Your task to perform on an android device: turn on priority inbox in the gmail app Image 0: 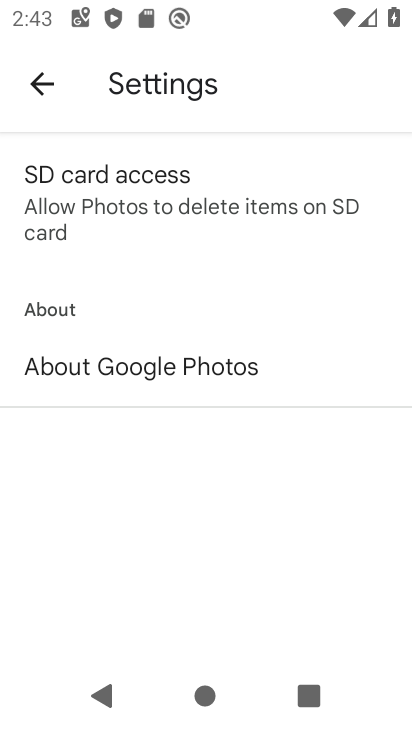
Step 0: press home button
Your task to perform on an android device: turn on priority inbox in the gmail app Image 1: 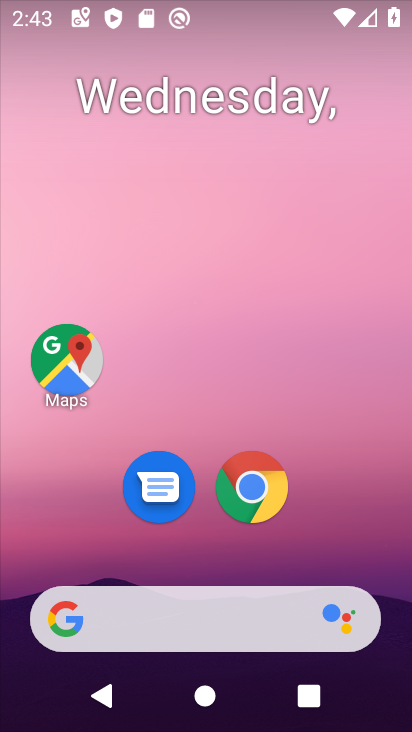
Step 1: drag from (379, 554) to (372, 118)
Your task to perform on an android device: turn on priority inbox in the gmail app Image 2: 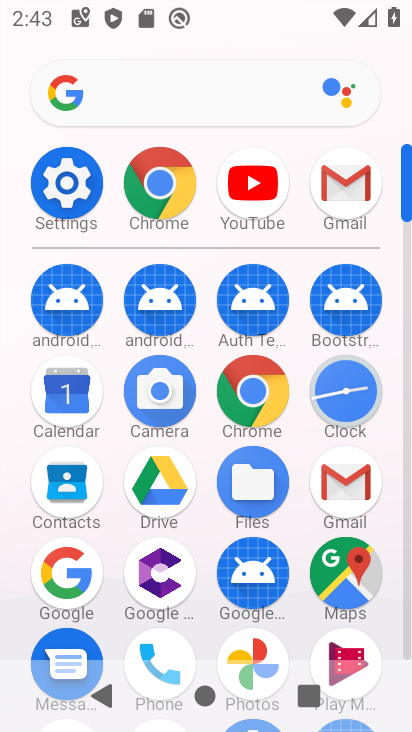
Step 2: click (355, 478)
Your task to perform on an android device: turn on priority inbox in the gmail app Image 3: 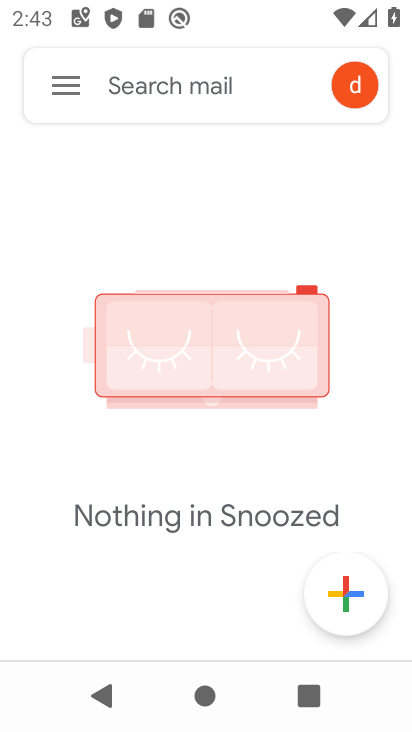
Step 3: click (69, 92)
Your task to perform on an android device: turn on priority inbox in the gmail app Image 4: 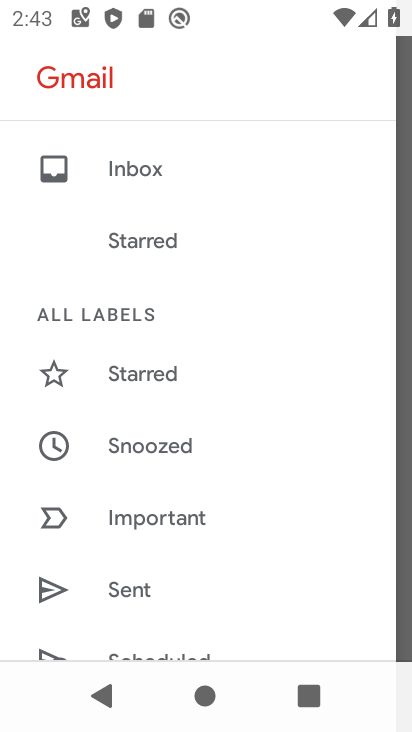
Step 4: drag from (287, 348) to (293, 260)
Your task to perform on an android device: turn on priority inbox in the gmail app Image 5: 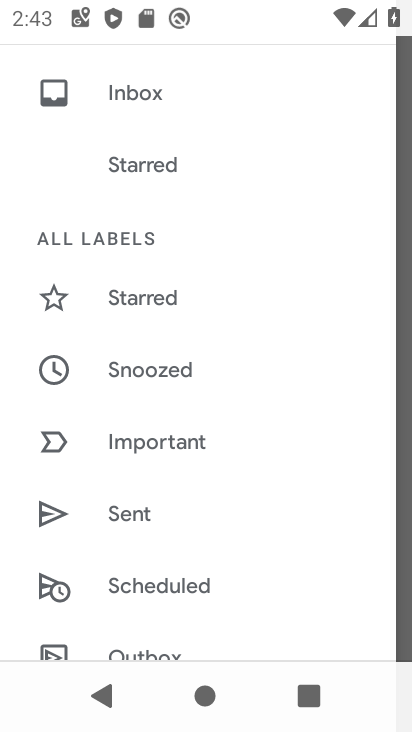
Step 5: drag from (291, 374) to (302, 304)
Your task to perform on an android device: turn on priority inbox in the gmail app Image 6: 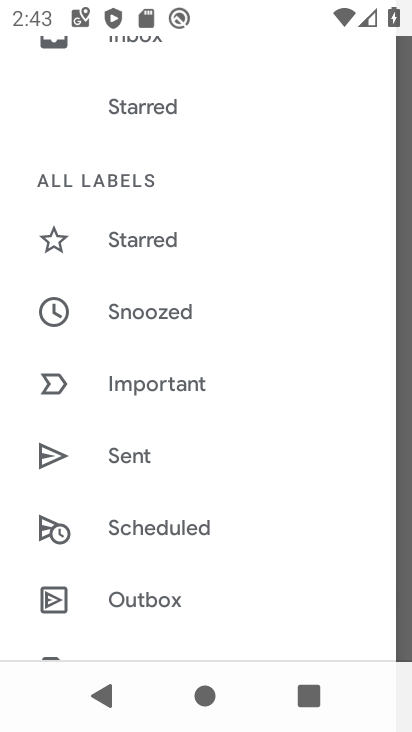
Step 6: drag from (289, 400) to (286, 328)
Your task to perform on an android device: turn on priority inbox in the gmail app Image 7: 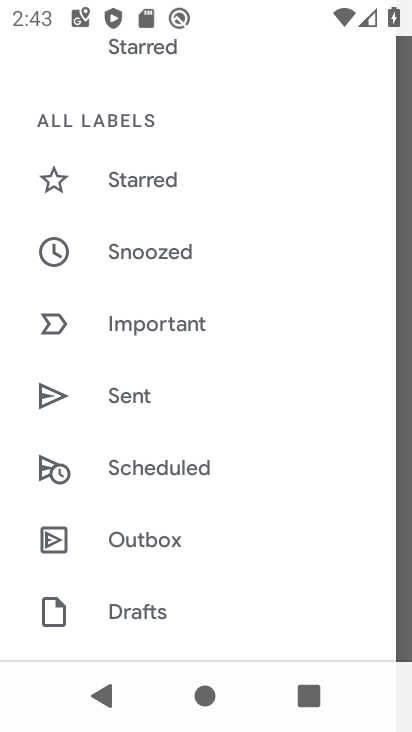
Step 7: drag from (277, 386) to (276, 329)
Your task to perform on an android device: turn on priority inbox in the gmail app Image 8: 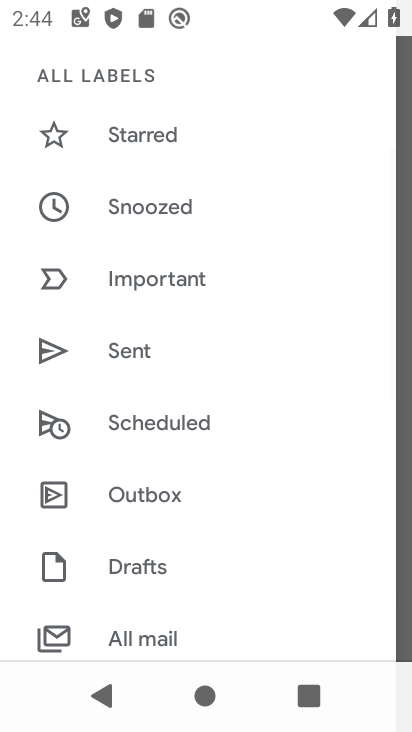
Step 8: drag from (290, 420) to (289, 346)
Your task to perform on an android device: turn on priority inbox in the gmail app Image 9: 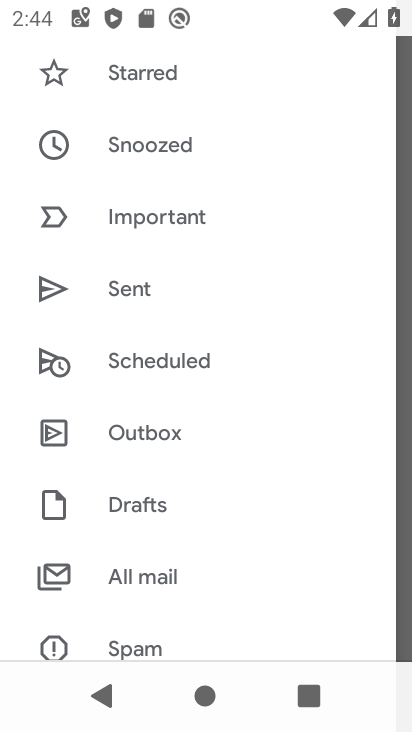
Step 9: drag from (281, 412) to (299, 353)
Your task to perform on an android device: turn on priority inbox in the gmail app Image 10: 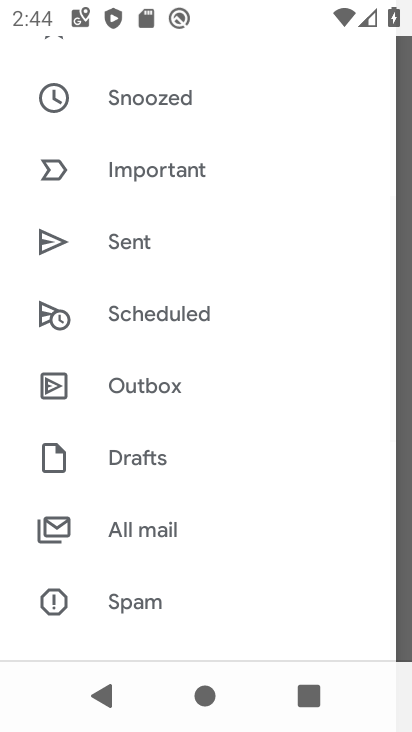
Step 10: drag from (285, 426) to (285, 343)
Your task to perform on an android device: turn on priority inbox in the gmail app Image 11: 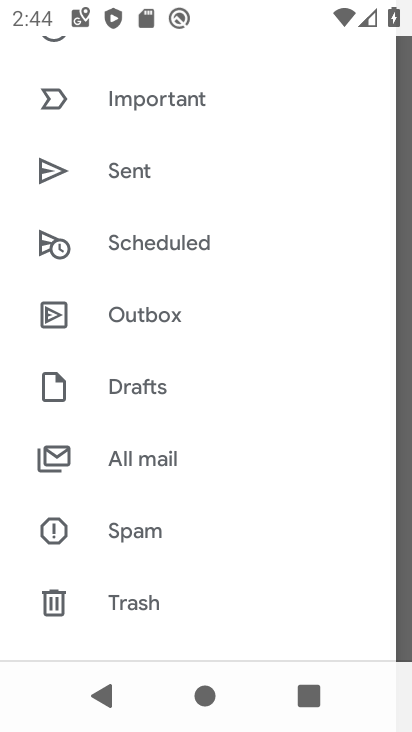
Step 11: drag from (267, 437) to (273, 367)
Your task to perform on an android device: turn on priority inbox in the gmail app Image 12: 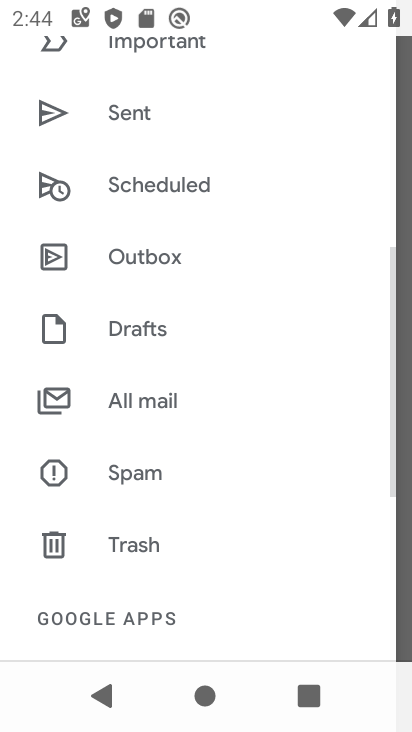
Step 12: drag from (286, 424) to (280, 343)
Your task to perform on an android device: turn on priority inbox in the gmail app Image 13: 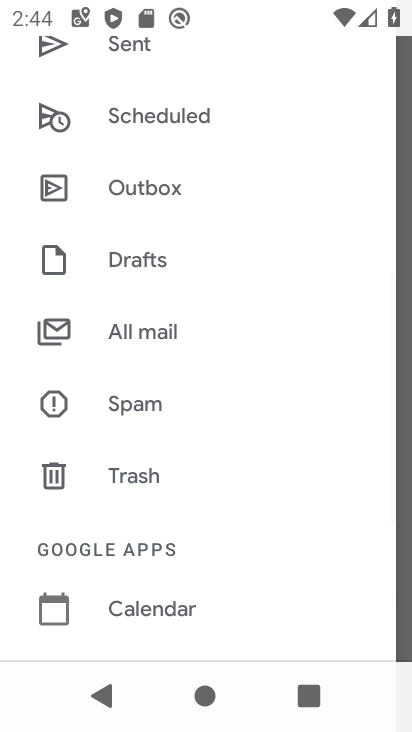
Step 13: drag from (268, 434) to (275, 357)
Your task to perform on an android device: turn on priority inbox in the gmail app Image 14: 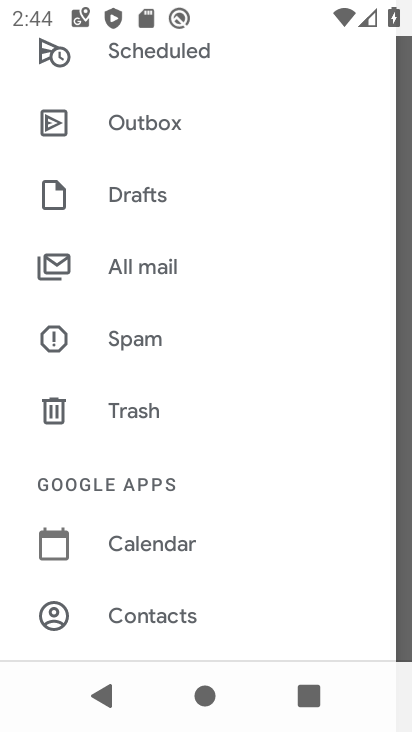
Step 14: drag from (268, 426) to (275, 335)
Your task to perform on an android device: turn on priority inbox in the gmail app Image 15: 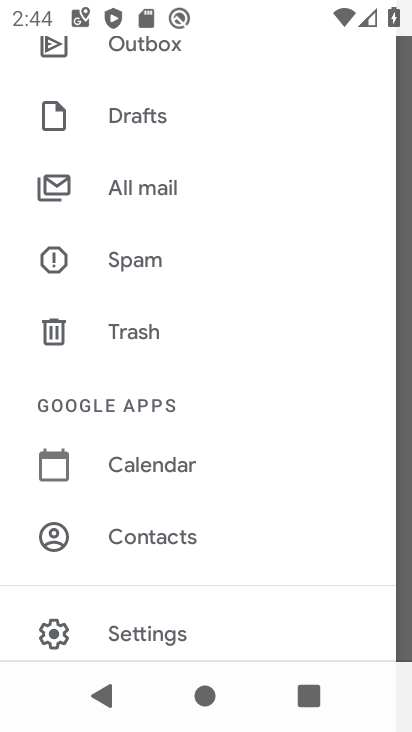
Step 15: drag from (283, 466) to (272, 297)
Your task to perform on an android device: turn on priority inbox in the gmail app Image 16: 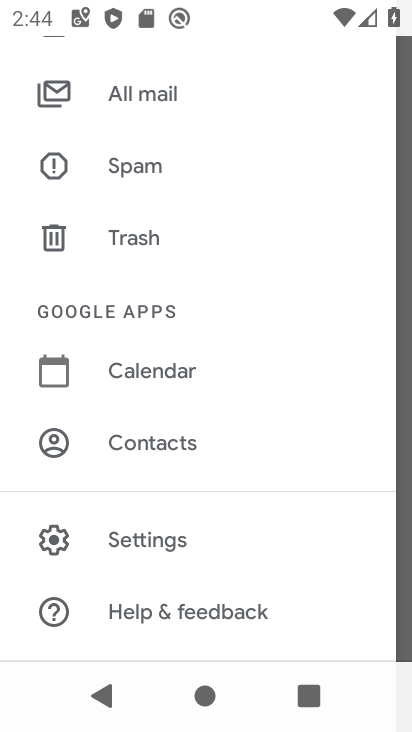
Step 16: click (206, 540)
Your task to perform on an android device: turn on priority inbox in the gmail app Image 17: 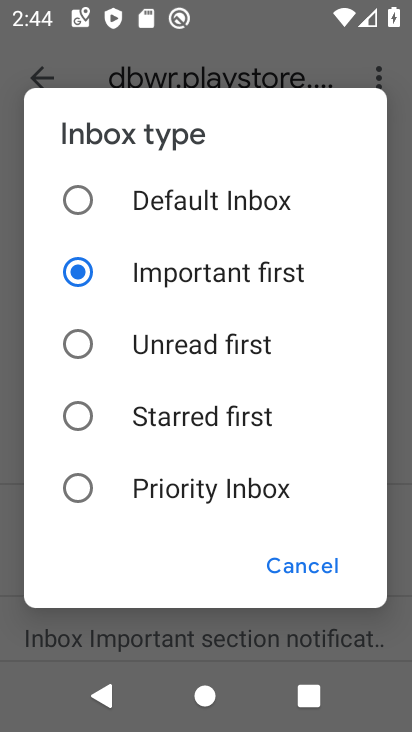
Step 17: click (221, 506)
Your task to perform on an android device: turn on priority inbox in the gmail app Image 18: 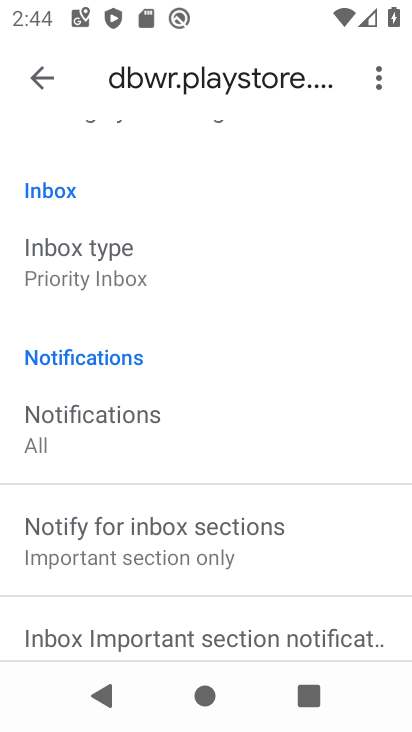
Step 18: task complete